Your task to perform on an android device: refresh tabs in the chrome app Image 0: 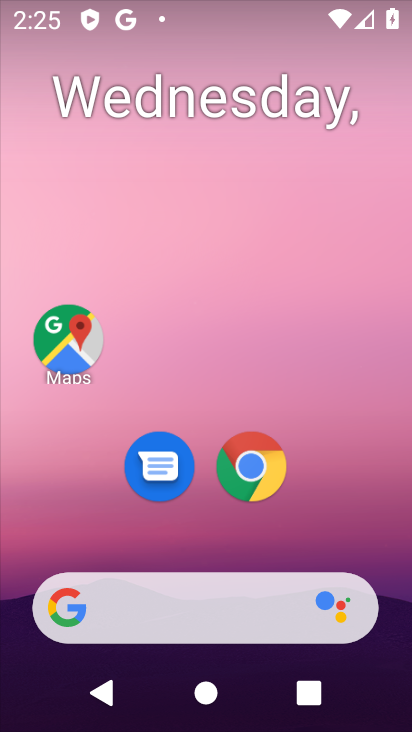
Step 0: click (276, 460)
Your task to perform on an android device: refresh tabs in the chrome app Image 1: 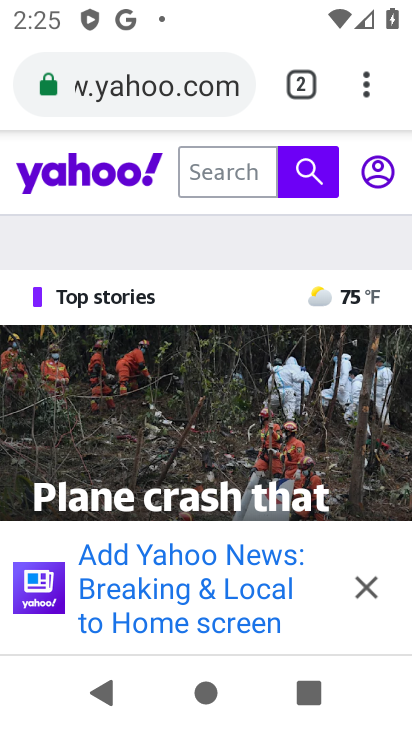
Step 1: click (365, 112)
Your task to perform on an android device: refresh tabs in the chrome app Image 2: 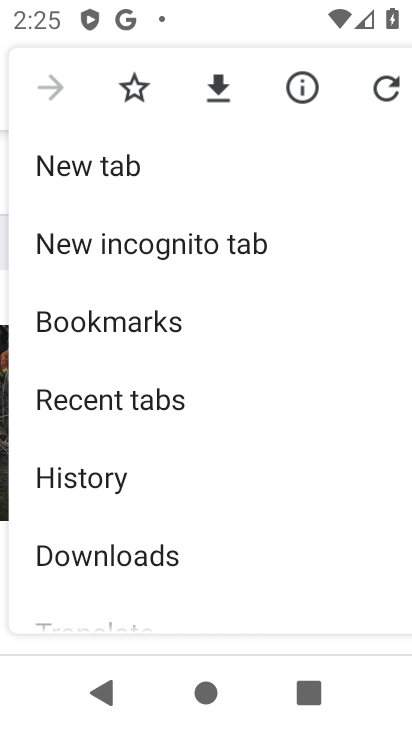
Step 2: click (398, 86)
Your task to perform on an android device: refresh tabs in the chrome app Image 3: 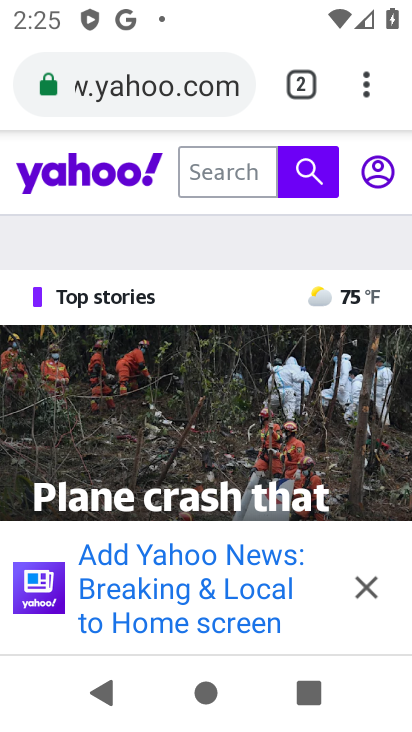
Step 3: task complete